Your task to perform on an android device: read, delete, or share a saved page in the chrome app Image 0: 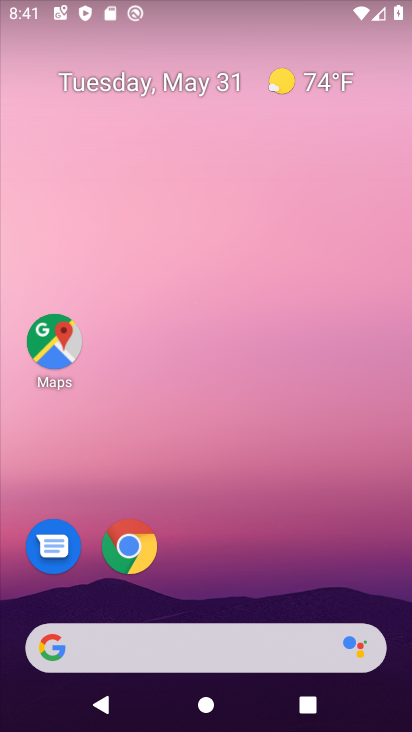
Step 0: drag from (216, 573) to (223, 59)
Your task to perform on an android device: read, delete, or share a saved page in the chrome app Image 1: 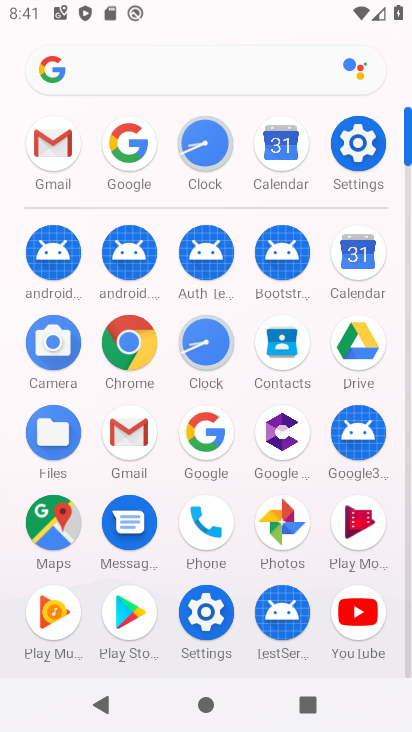
Step 1: click (127, 336)
Your task to perform on an android device: read, delete, or share a saved page in the chrome app Image 2: 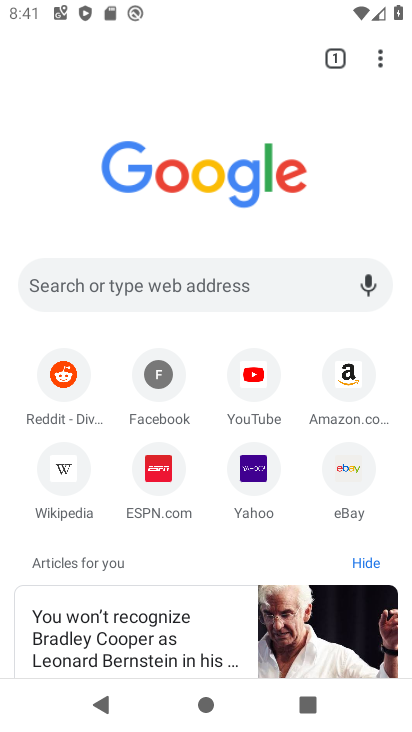
Step 2: click (367, 59)
Your task to perform on an android device: read, delete, or share a saved page in the chrome app Image 3: 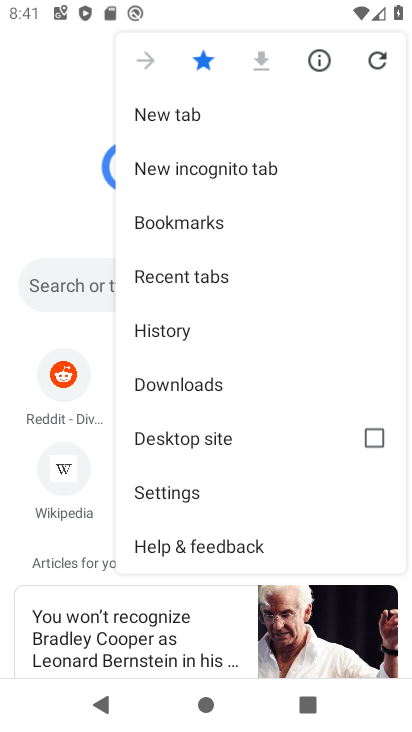
Step 3: click (197, 397)
Your task to perform on an android device: read, delete, or share a saved page in the chrome app Image 4: 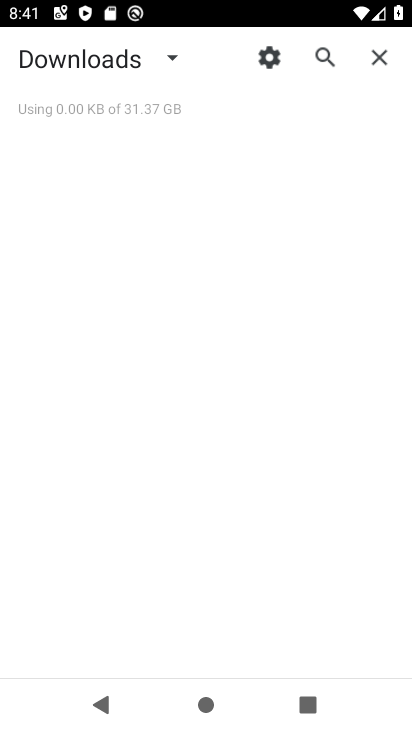
Step 4: task complete